Your task to perform on an android device: Add "duracell triple a" to the cart on target.com, then select checkout. Image 0: 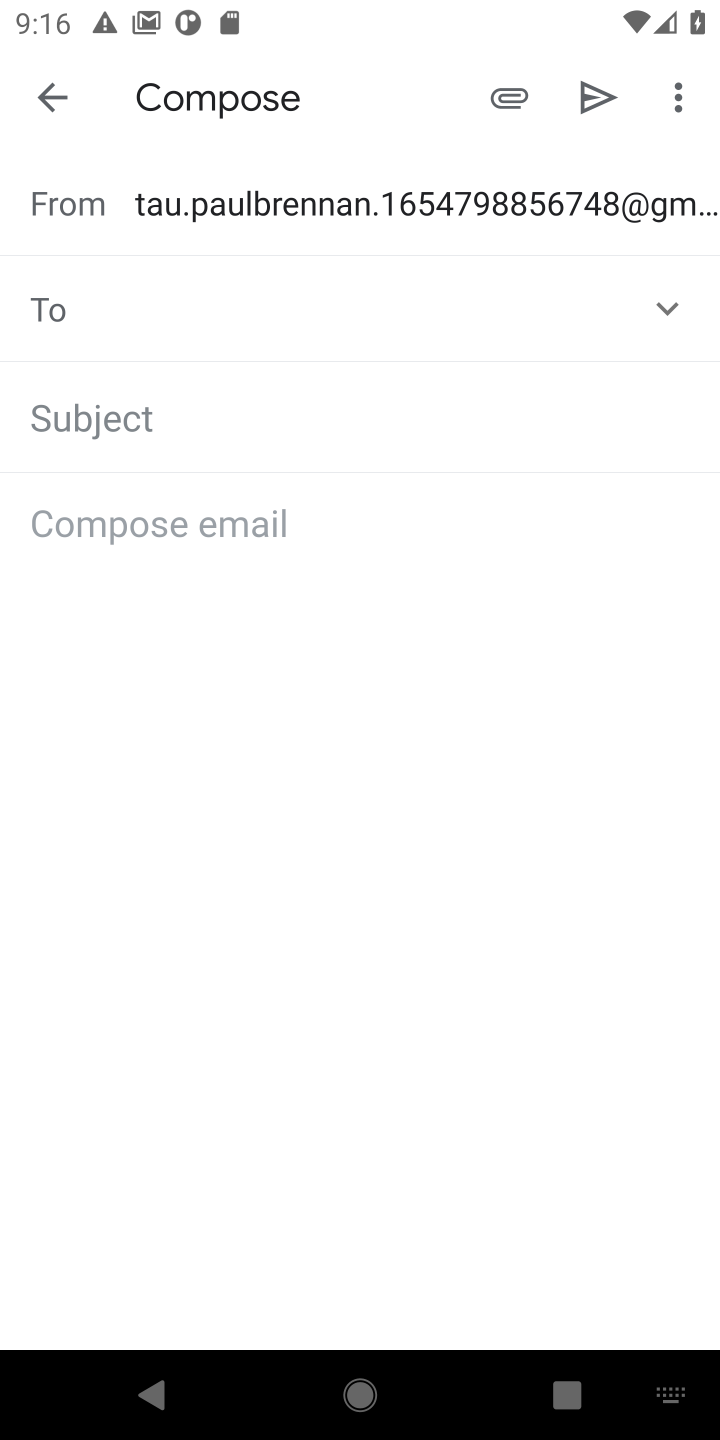
Step 0: press home button
Your task to perform on an android device: Add "duracell triple a" to the cart on target.com, then select checkout. Image 1: 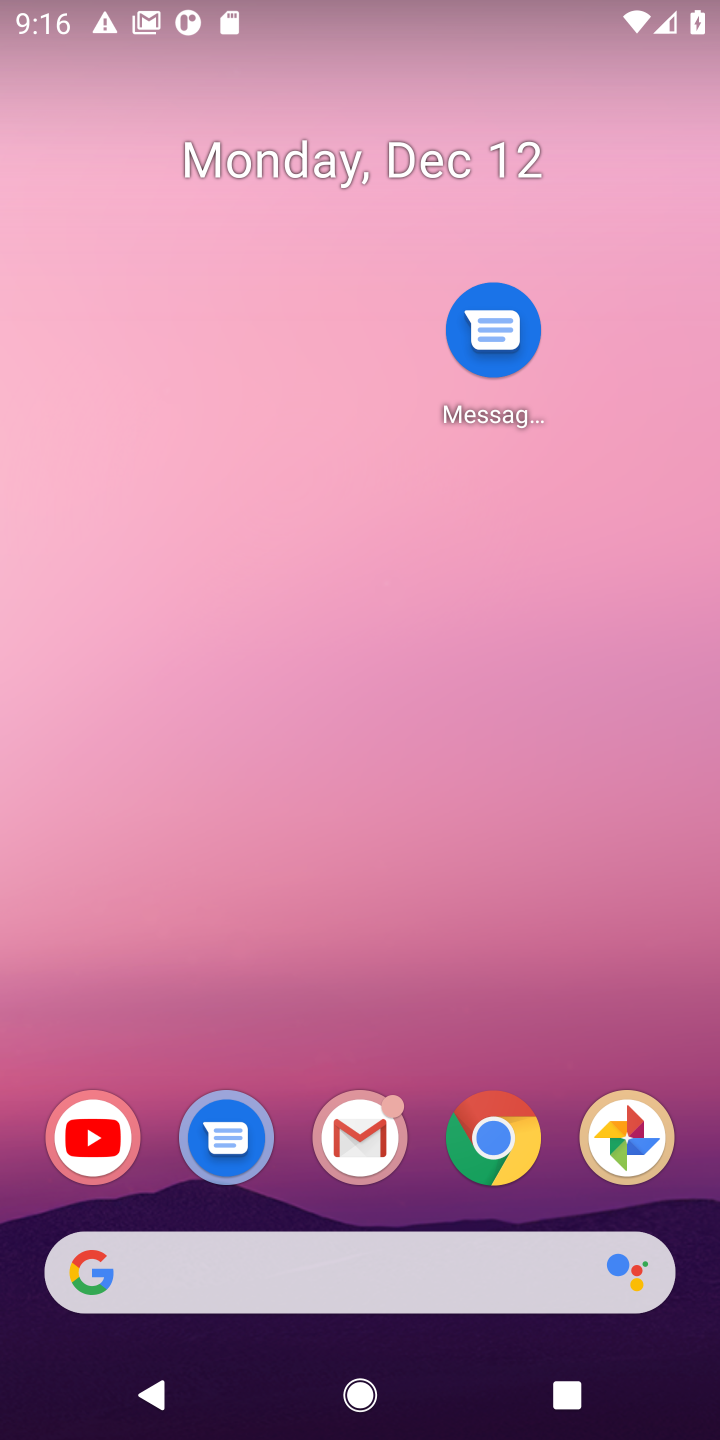
Step 1: drag from (286, 1192) to (307, 333)
Your task to perform on an android device: Add "duracell triple a" to the cart on target.com, then select checkout. Image 2: 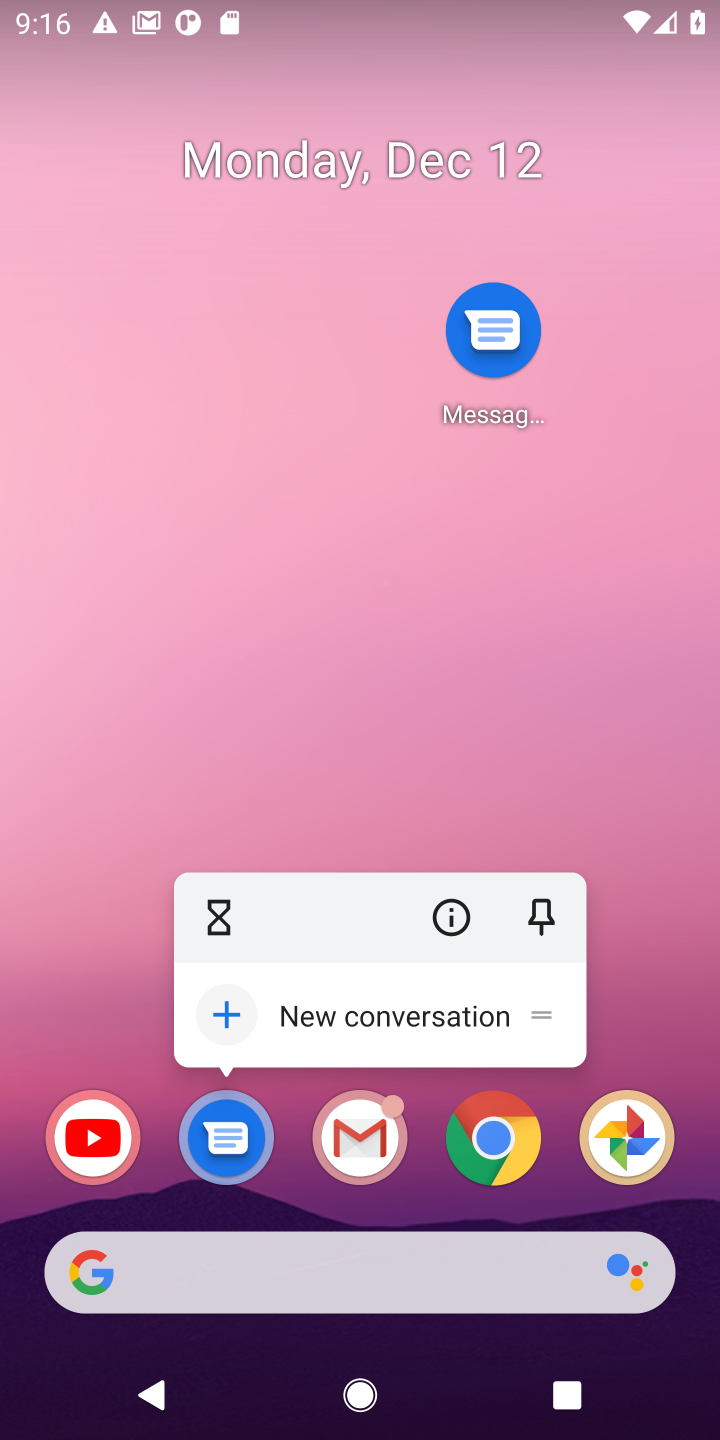
Step 2: click (78, 976)
Your task to perform on an android device: Add "duracell triple a" to the cart on target.com, then select checkout. Image 3: 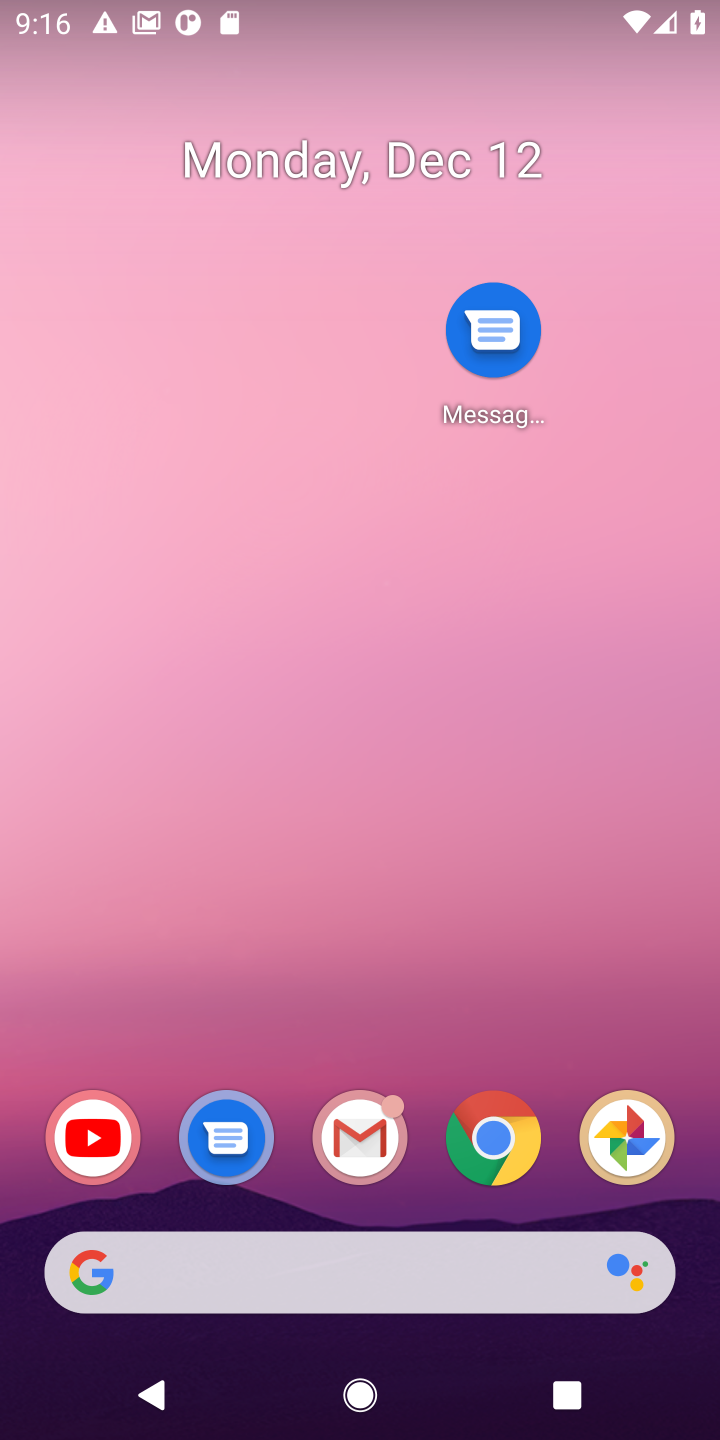
Step 3: drag from (367, 1246) to (317, 488)
Your task to perform on an android device: Add "duracell triple a" to the cart on target.com, then select checkout. Image 4: 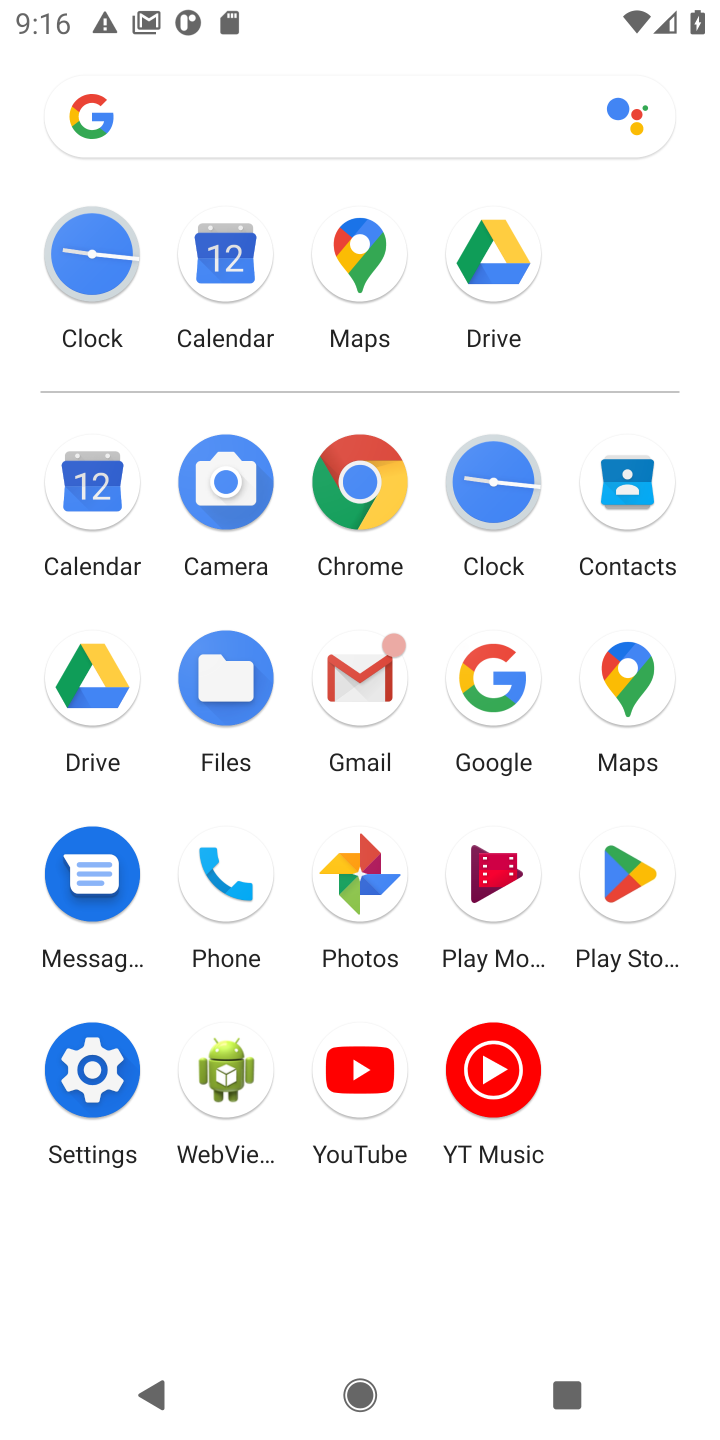
Step 4: click (496, 670)
Your task to perform on an android device: Add "duracell triple a" to the cart on target.com, then select checkout. Image 5: 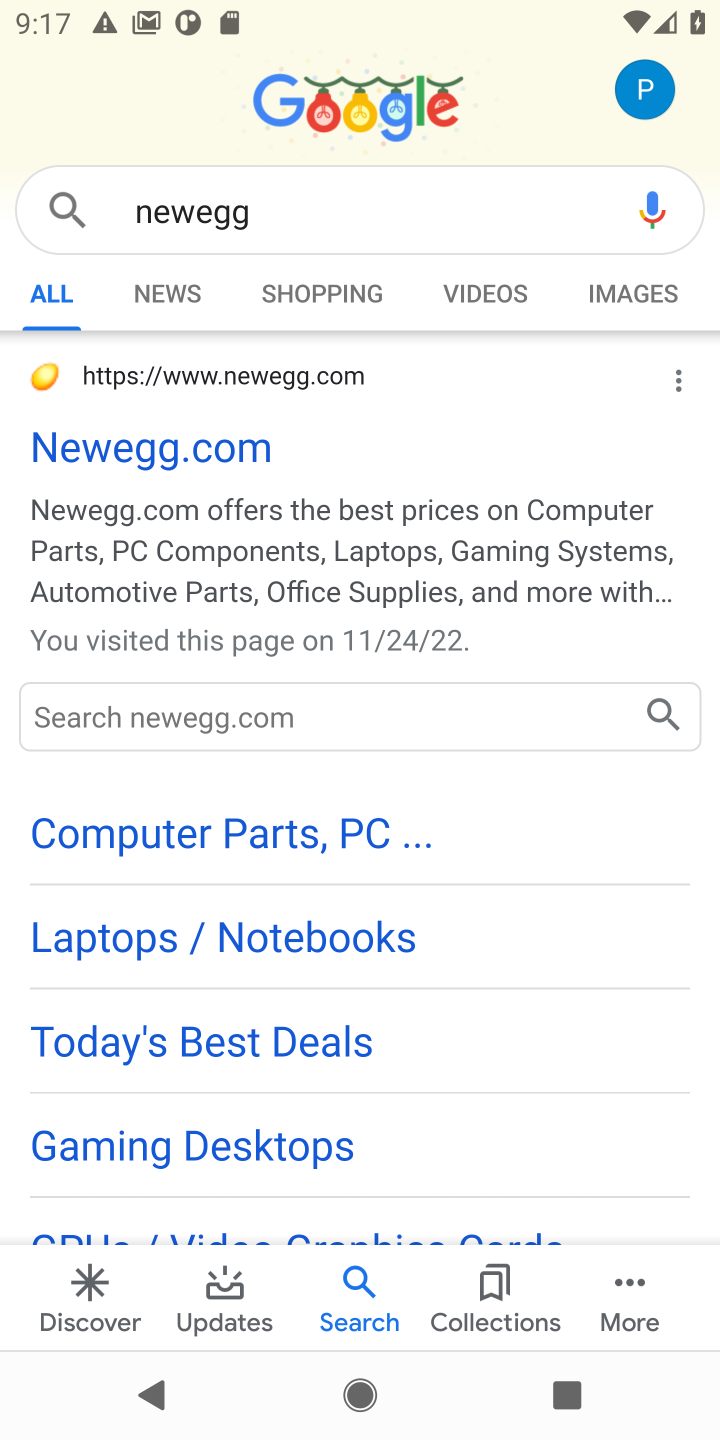
Step 5: click (189, 208)
Your task to perform on an android device: Add "duracell triple a" to the cart on target.com, then select checkout. Image 6: 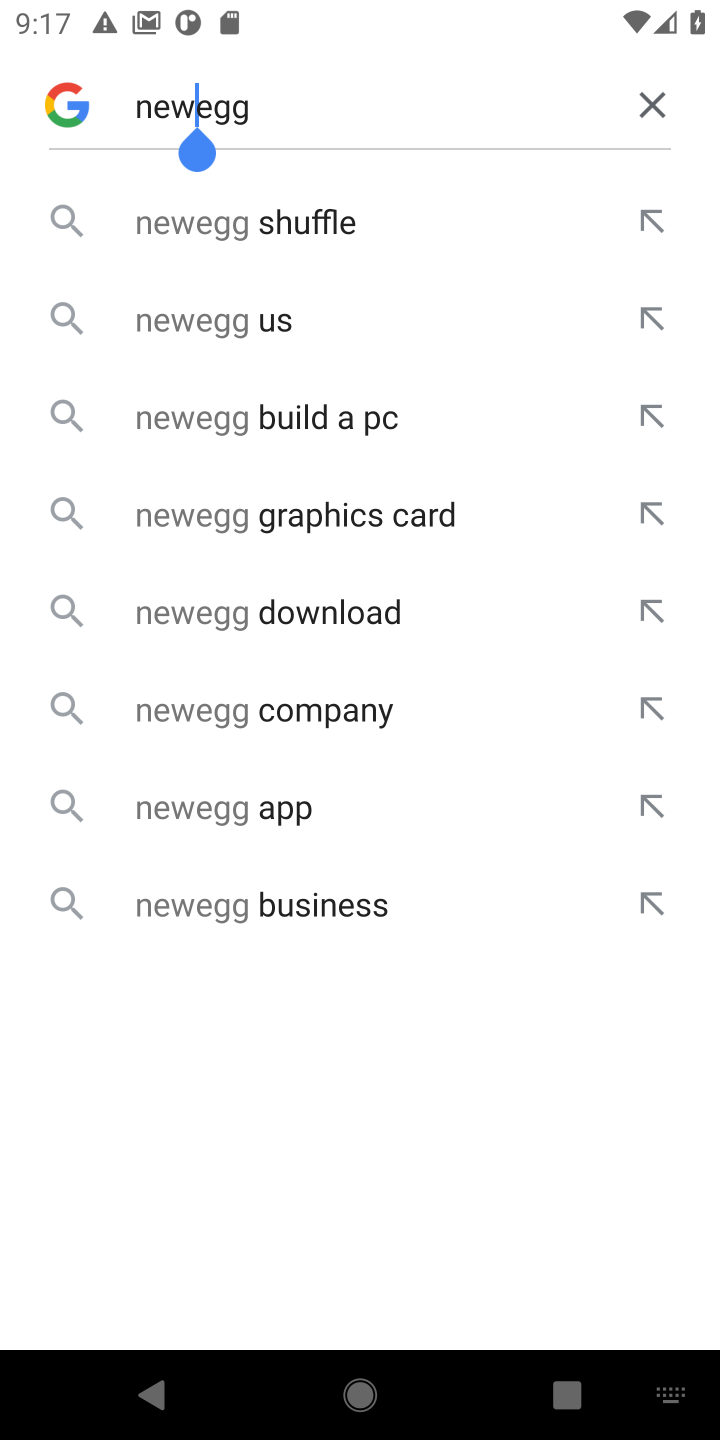
Step 6: click (655, 108)
Your task to perform on an android device: Add "duracell triple a" to the cart on target.com, then select checkout. Image 7: 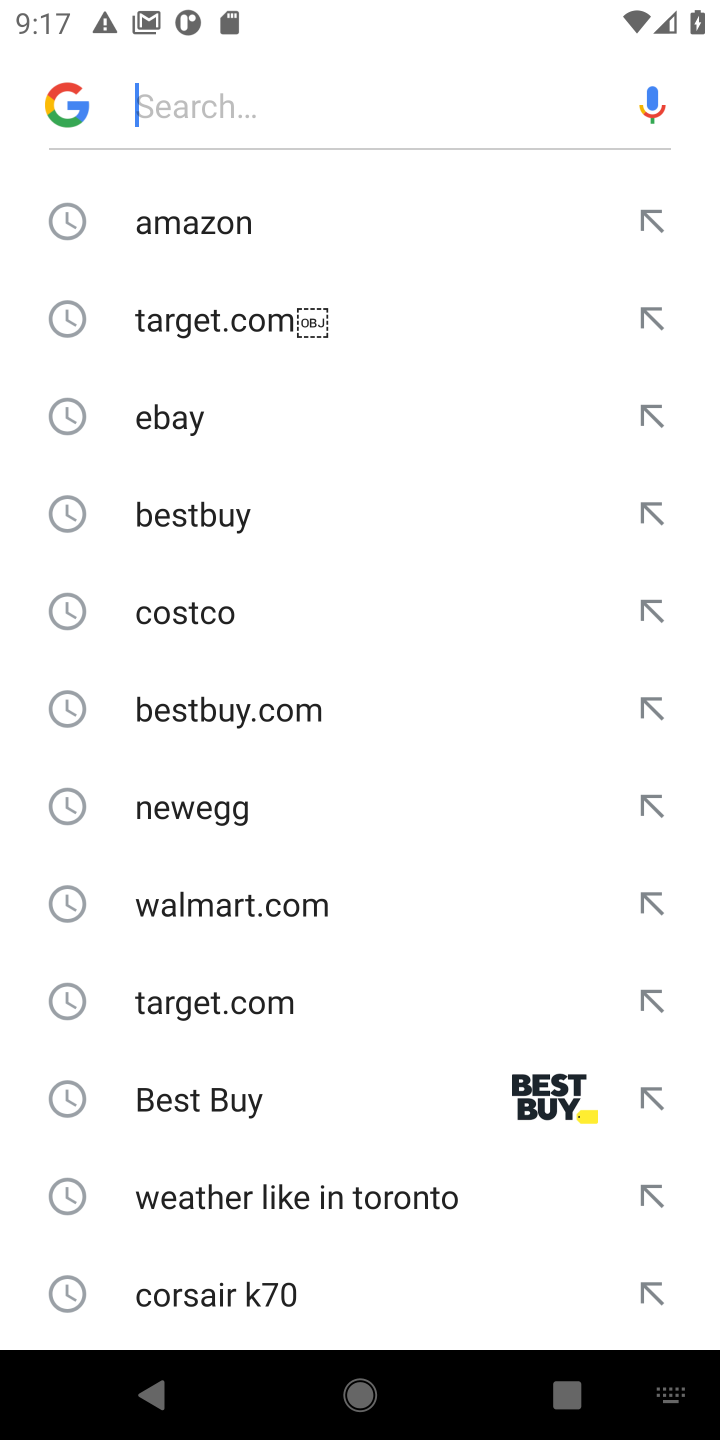
Step 7: click (197, 1002)
Your task to perform on an android device: Add "duracell triple a" to the cart on target.com, then select checkout. Image 8: 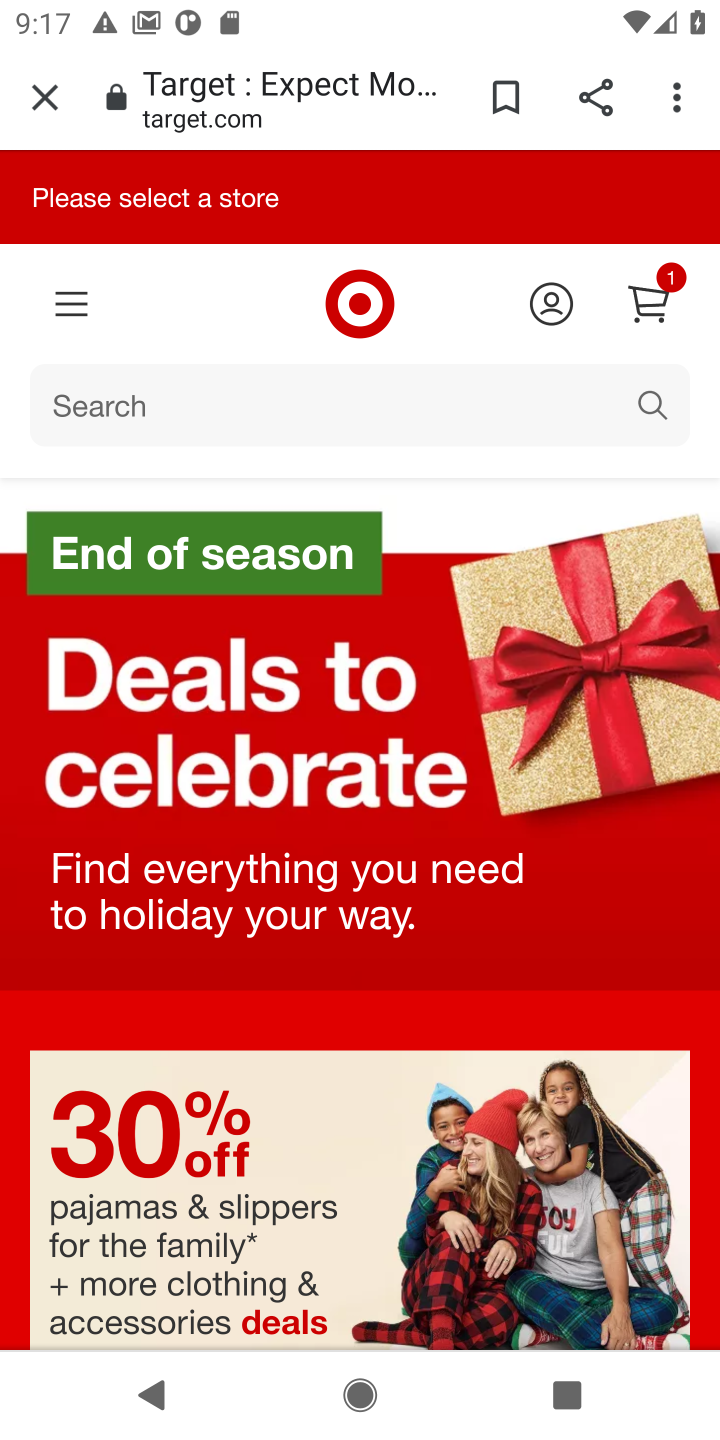
Step 8: click (98, 401)
Your task to perform on an android device: Add "duracell triple a" to the cart on target.com, then select checkout. Image 9: 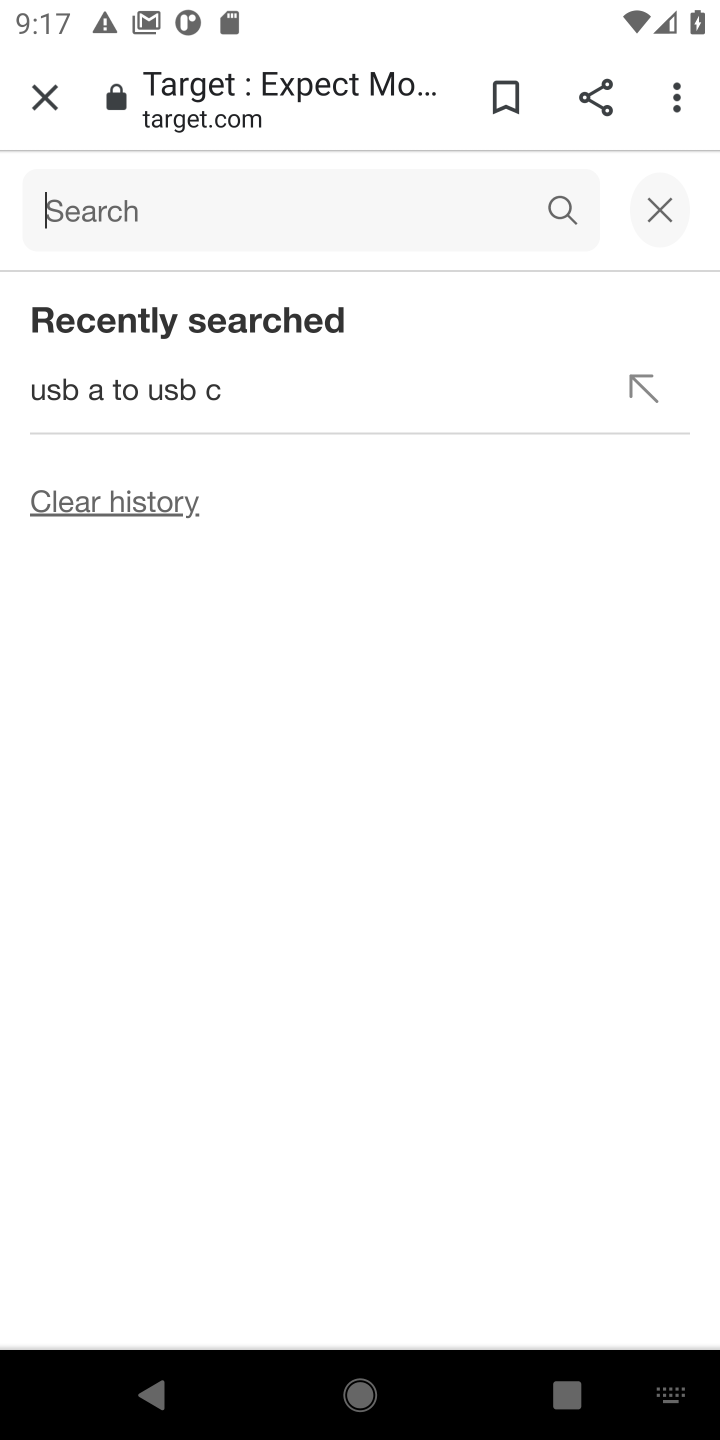
Step 9: type "duracell triple a"
Your task to perform on an android device: Add "duracell triple a" to the cart on target.com, then select checkout. Image 10: 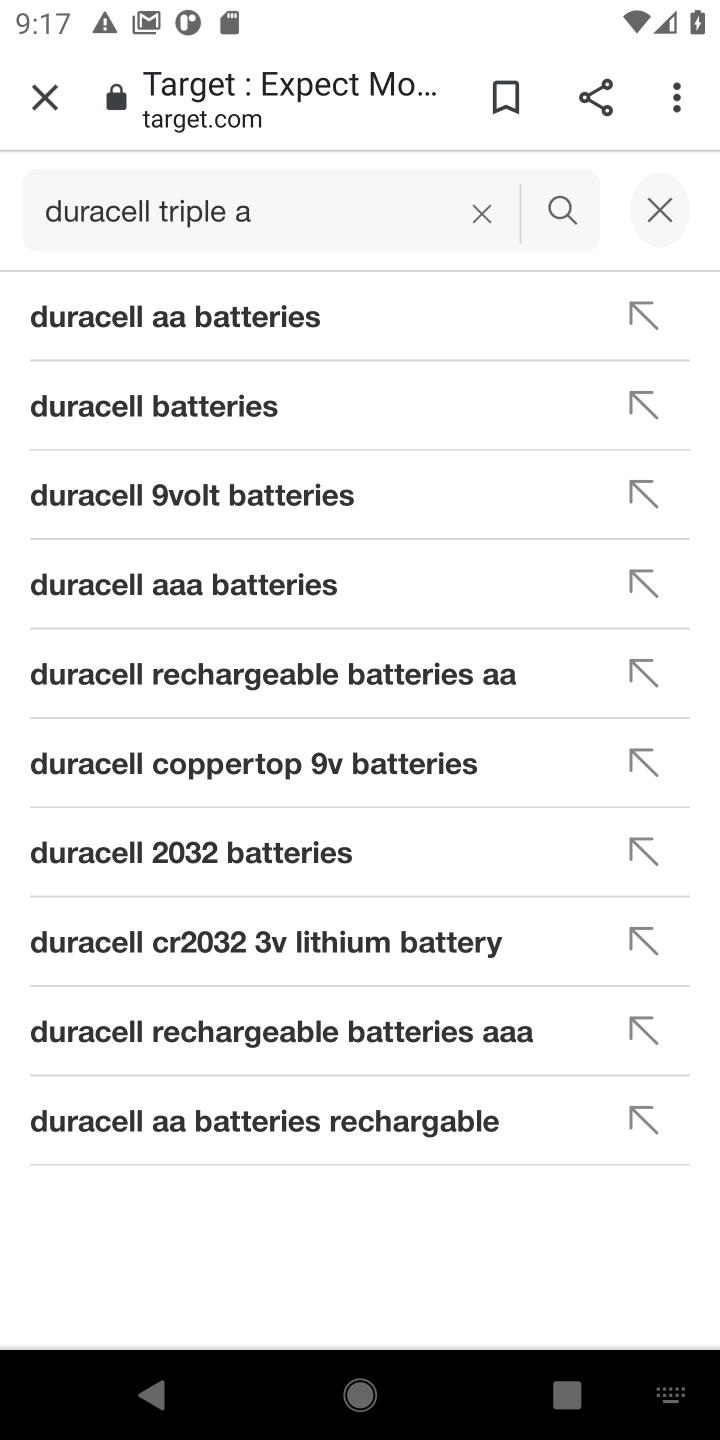
Step 10: click (551, 211)
Your task to perform on an android device: Add "duracell triple a" to the cart on target.com, then select checkout. Image 11: 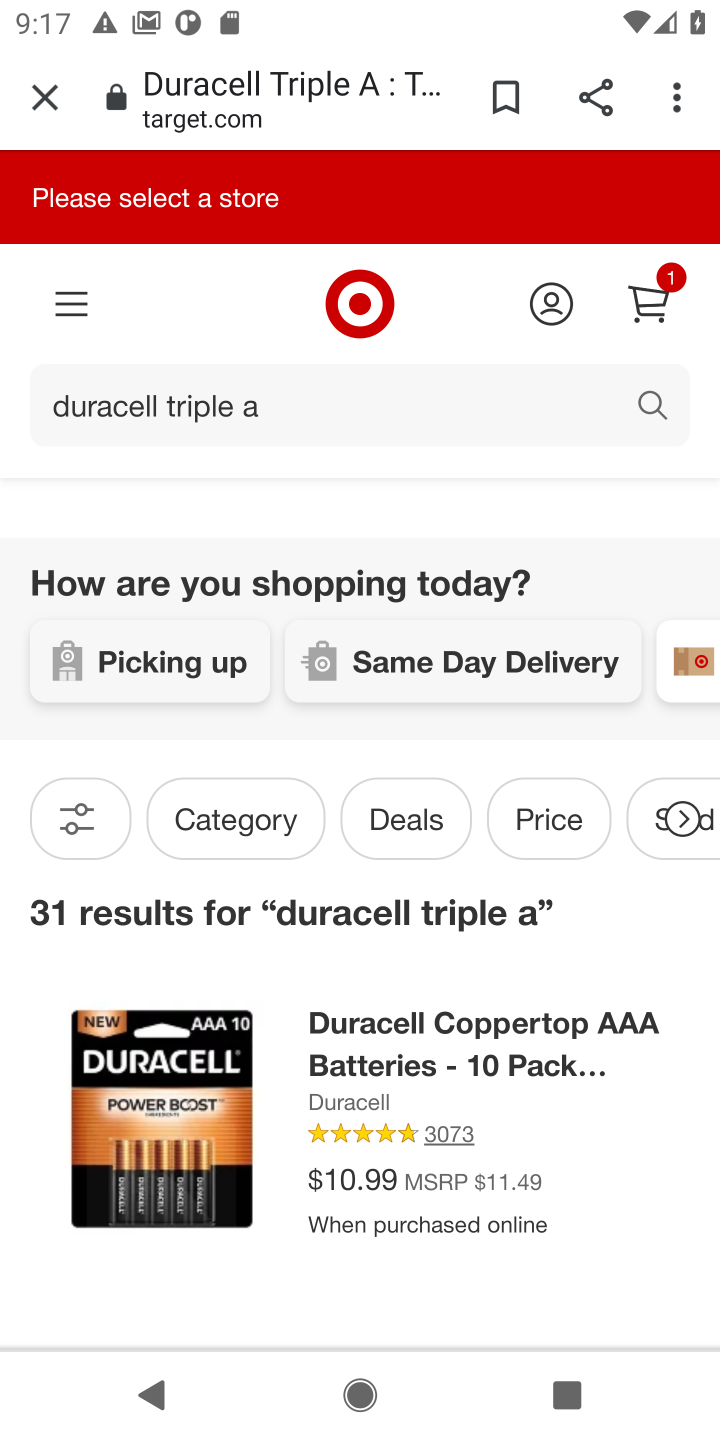
Step 11: drag from (281, 1174) to (264, 613)
Your task to perform on an android device: Add "duracell triple a" to the cart on target.com, then select checkout. Image 12: 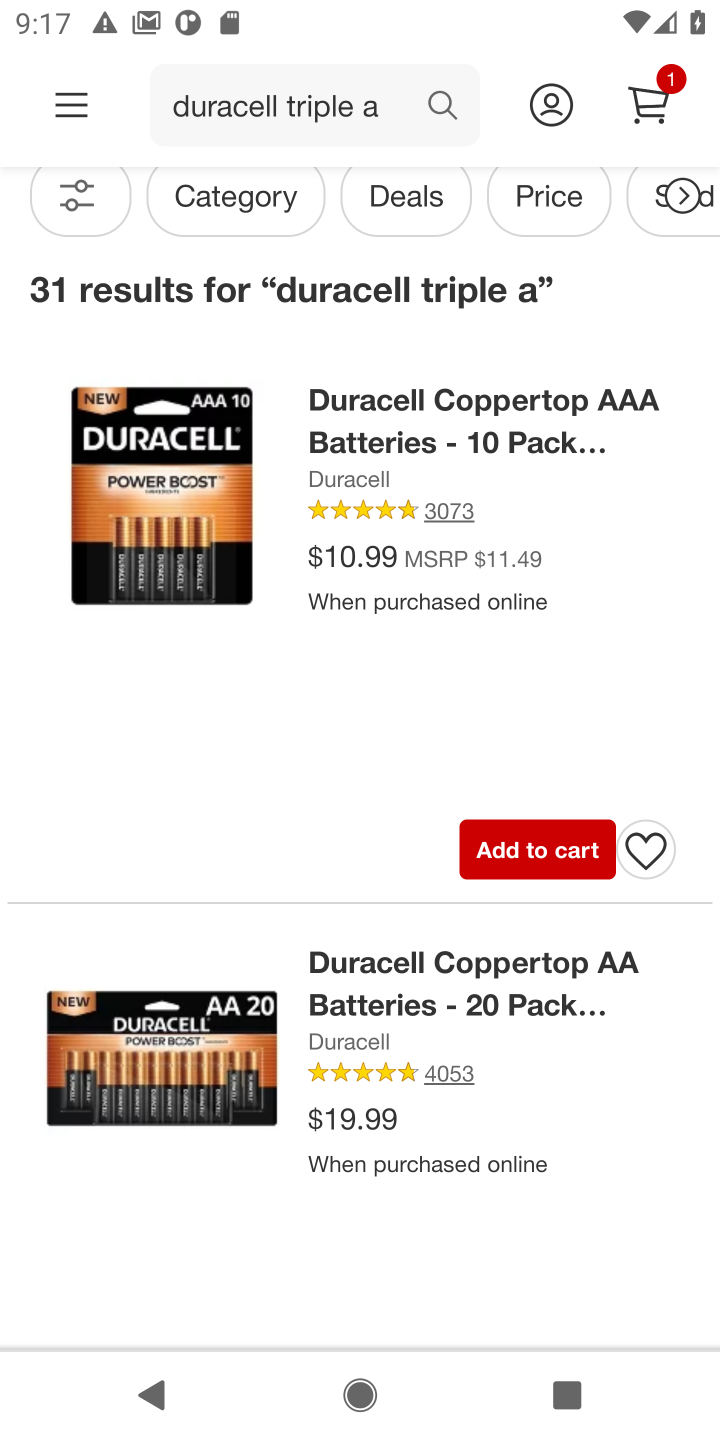
Step 12: click (538, 850)
Your task to perform on an android device: Add "duracell triple a" to the cart on target.com, then select checkout. Image 13: 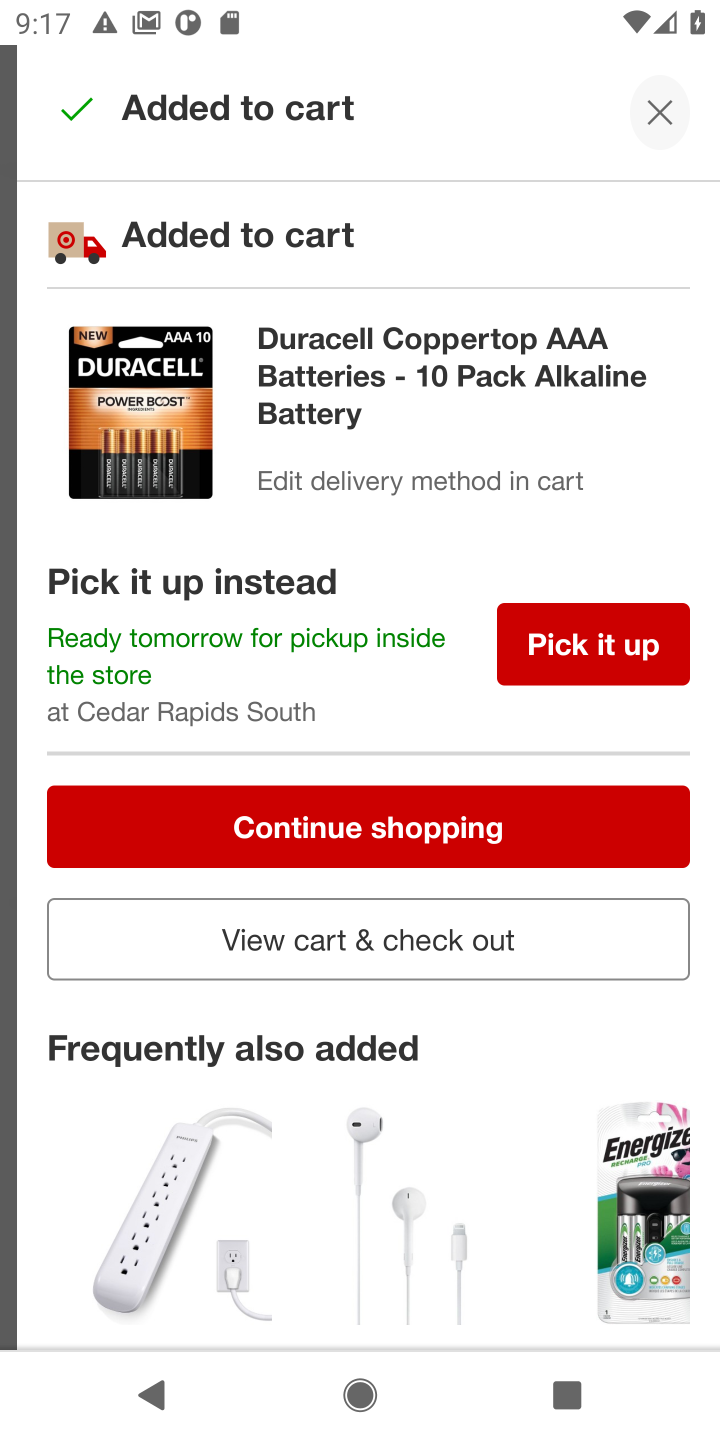
Step 13: click (669, 115)
Your task to perform on an android device: Add "duracell triple a" to the cart on target.com, then select checkout. Image 14: 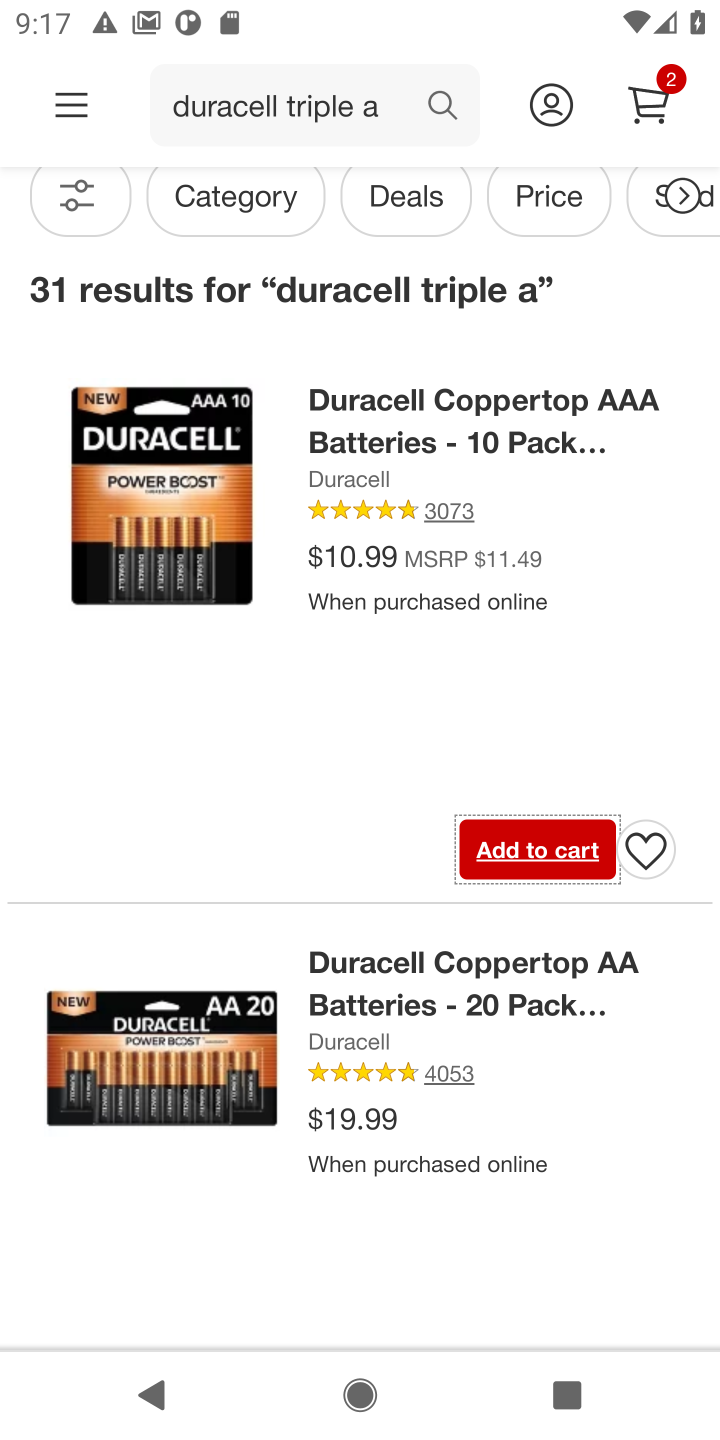
Step 14: click (639, 102)
Your task to perform on an android device: Add "duracell triple a" to the cart on target.com, then select checkout. Image 15: 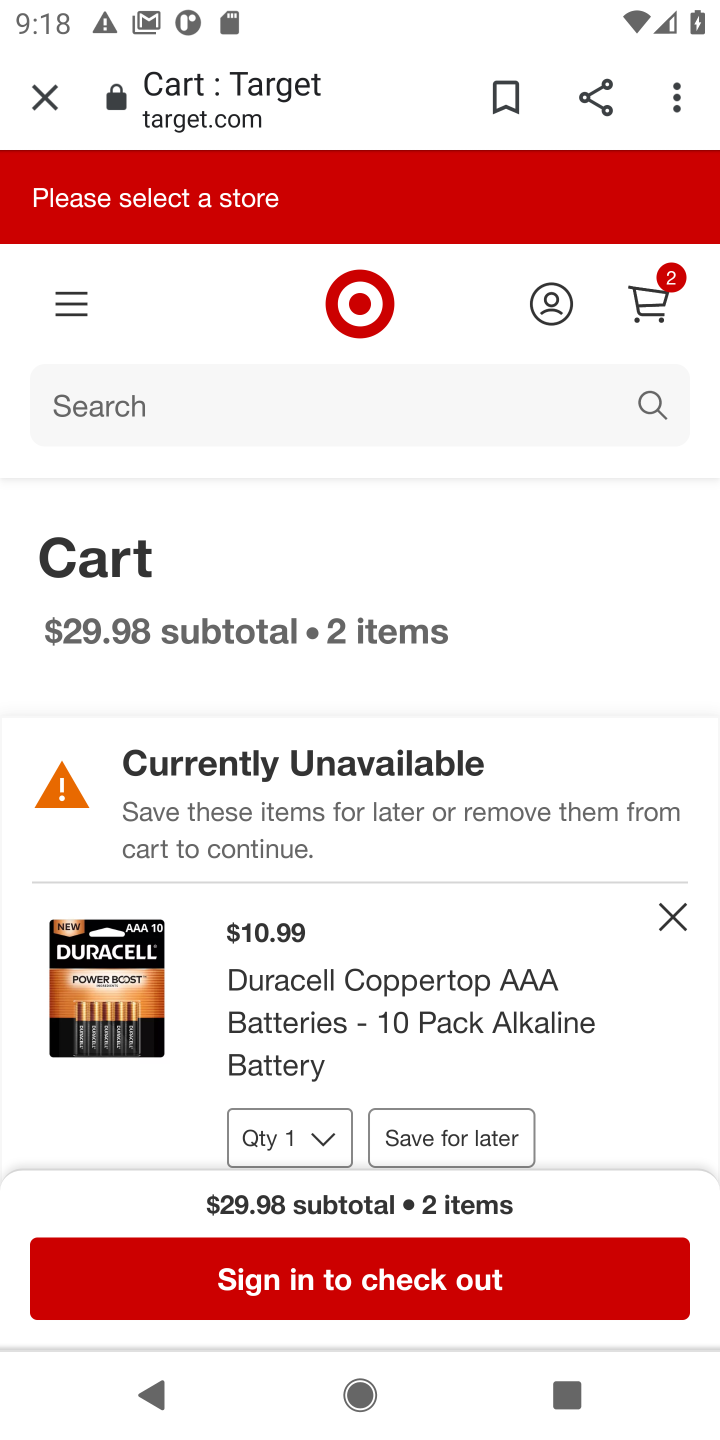
Step 15: click (362, 1282)
Your task to perform on an android device: Add "duracell triple a" to the cart on target.com, then select checkout. Image 16: 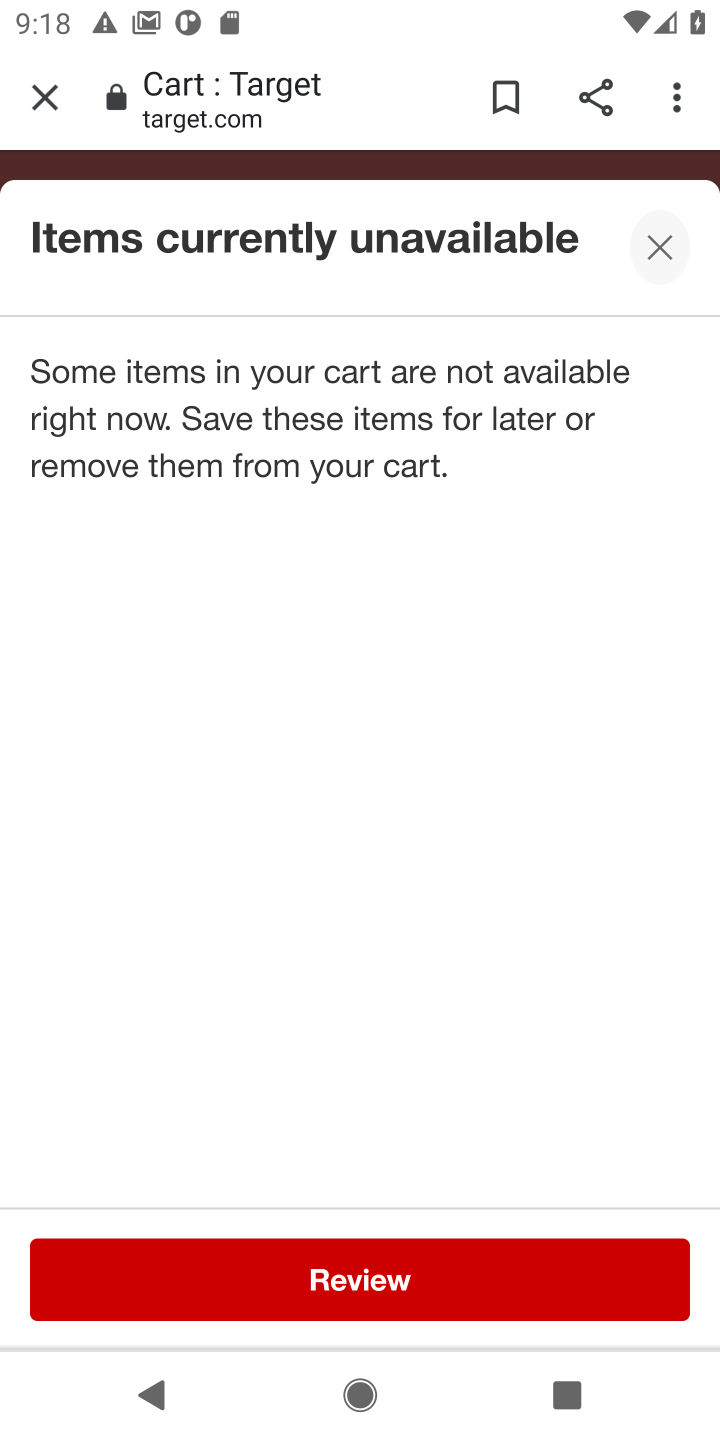
Step 16: task complete